Your task to perform on an android device: empty trash in the gmail app Image 0: 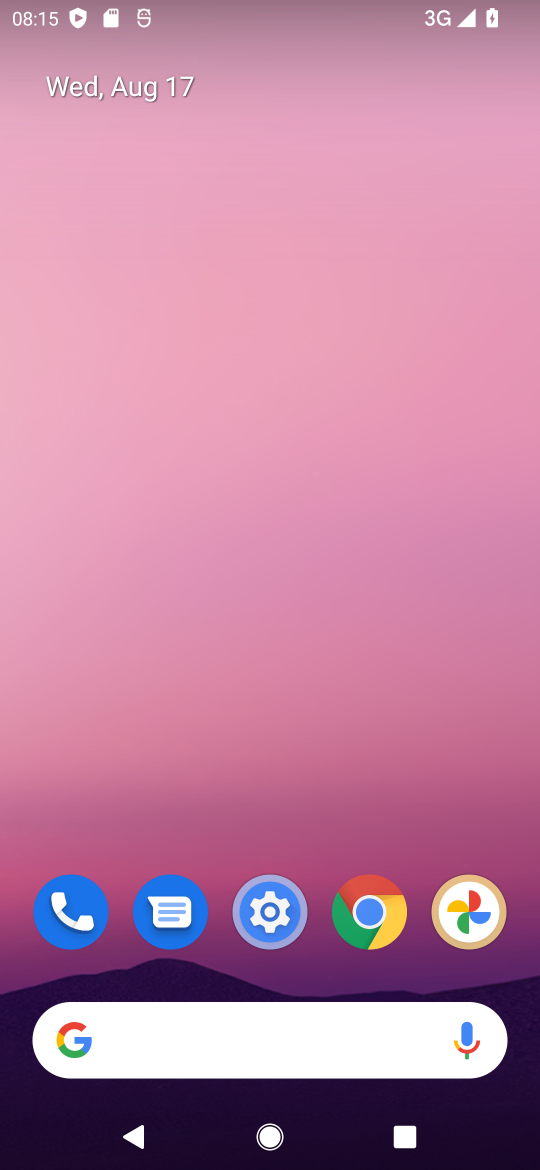
Step 0: drag from (304, 765) to (304, 92)
Your task to perform on an android device: empty trash in the gmail app Image 1: 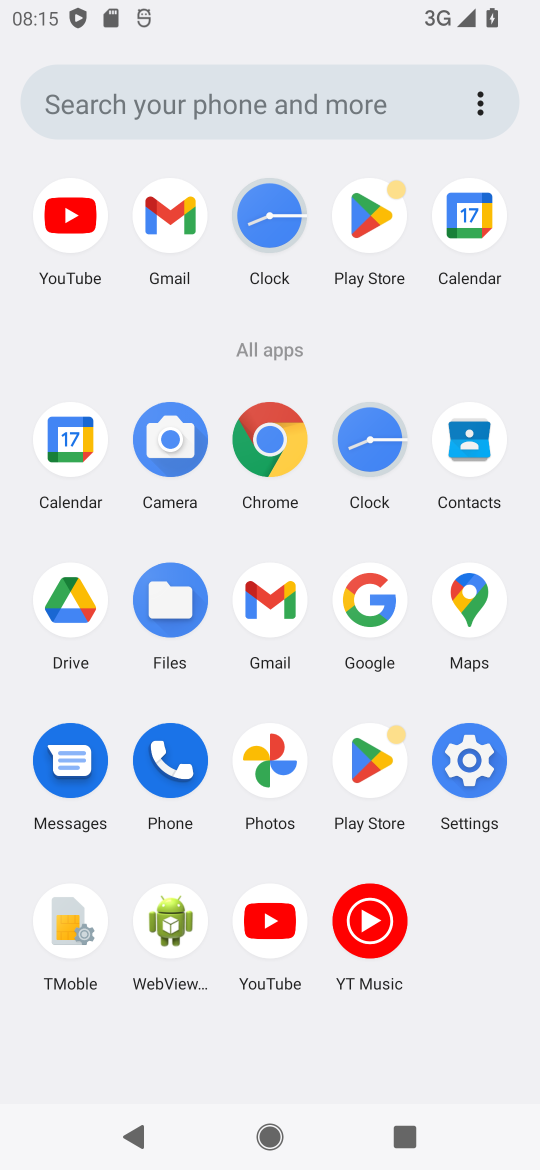
Step 1: click (264, 610)
Your task to perform on an android device: empty trash in the gmail app Image 2: 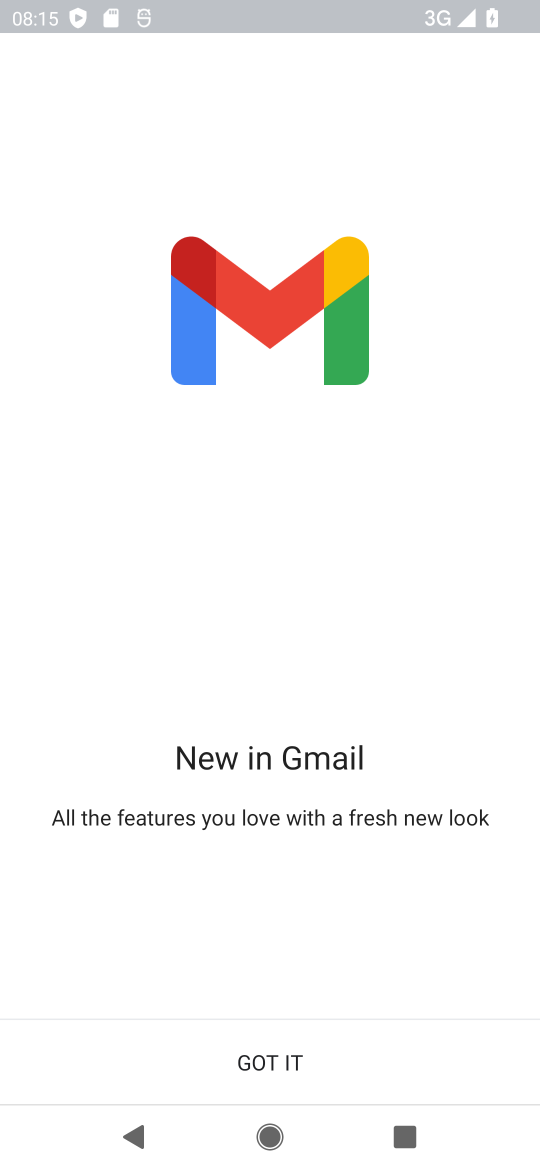
Step 2: click (279, 1058)
Your task to perform on an android device: empty trash in the gmail app Image 3: 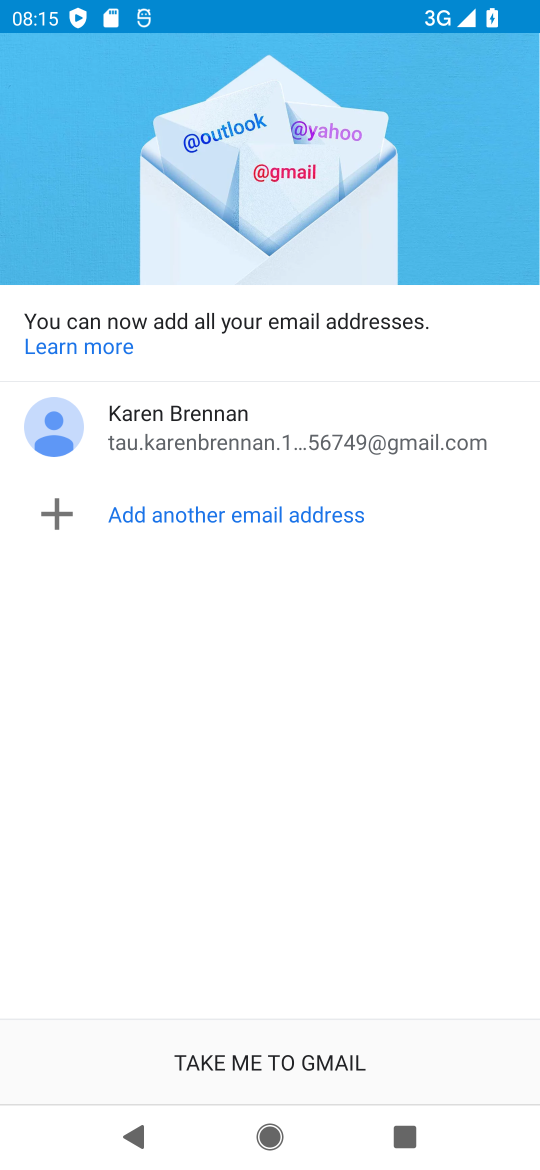
Step 3: click (279, 1058)
Your task to perform on an android device: empty trash in the gmail app Image 4: 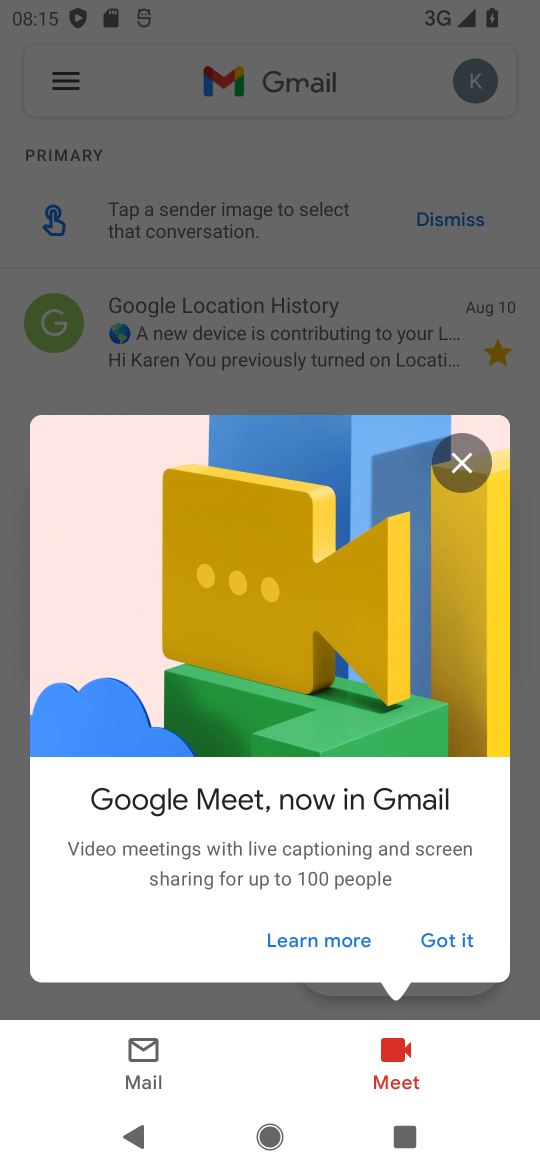
Step 4: click (436, 941)
Your task to perform on an android device: empty trash in the gmail app Image 5: 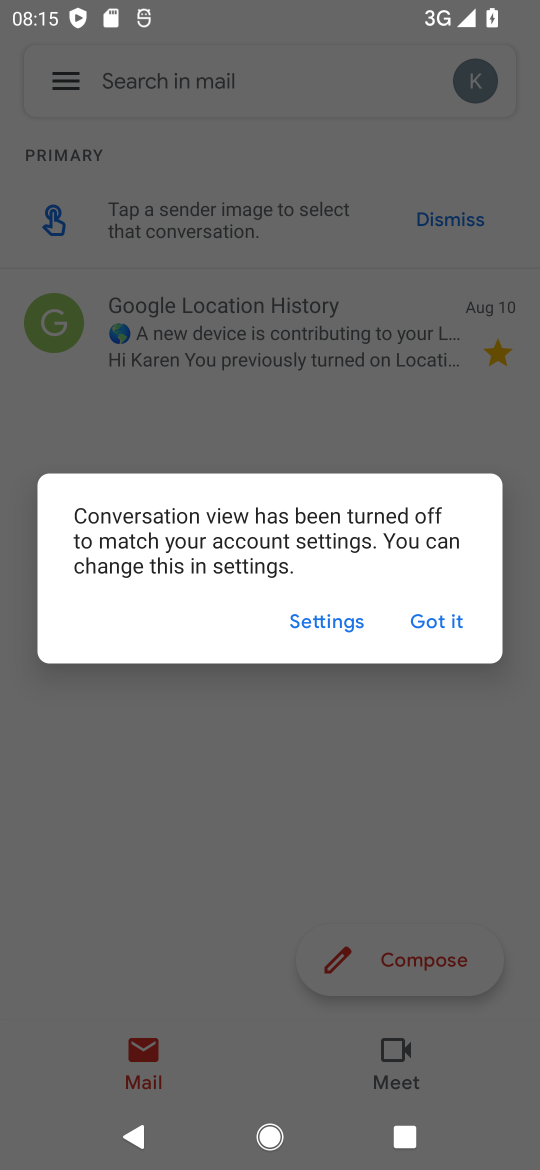
Step 5: click (430, 635)
Your task to perform on an android device: empty trash in the gmail app Image 6: 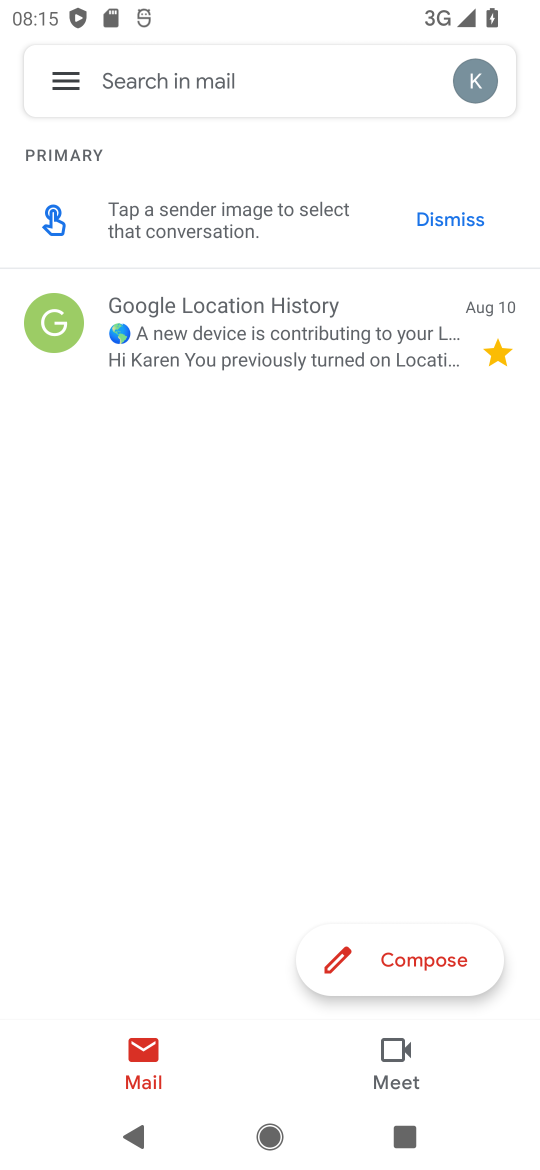
Step 6: click (62, 85)
Your task to perform on an android device: empty trash in the gmail app Image 7: 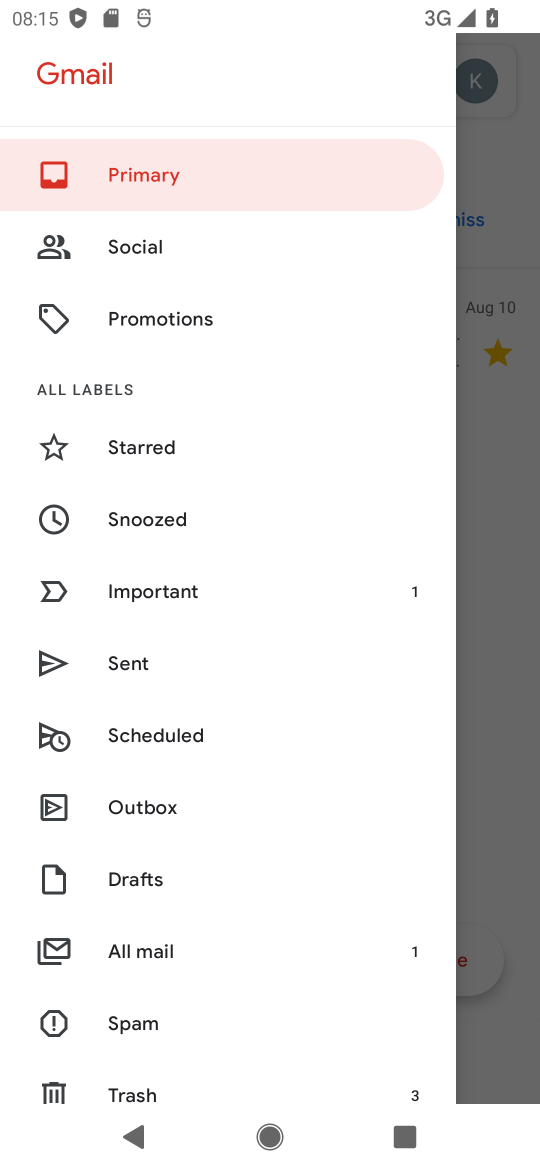
Step 7: click (129, 1080)
Your task to perform on an android device: empty trash in the gmail app Image 8: 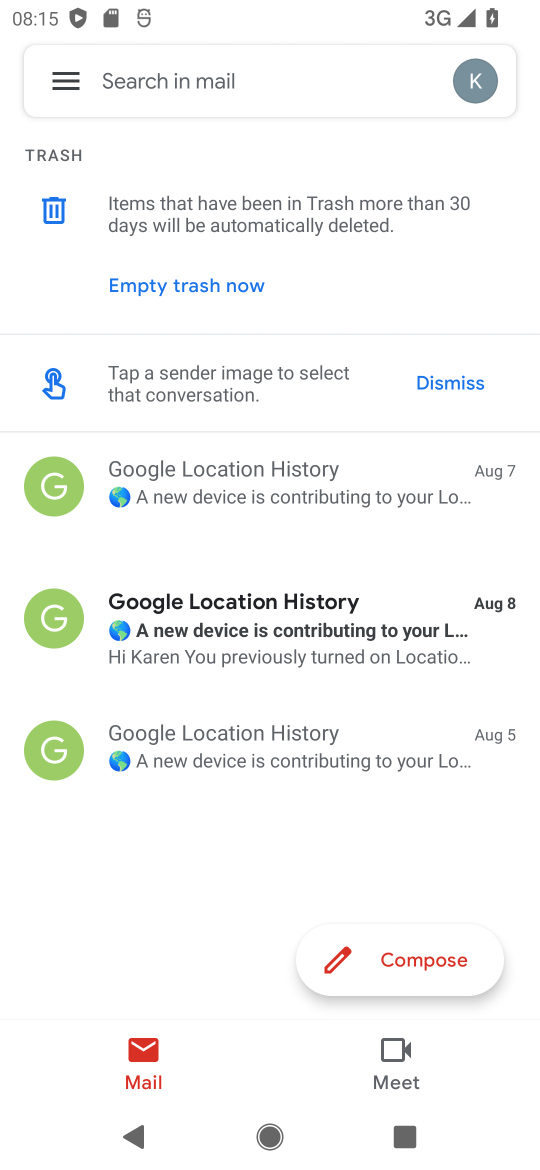
Step 8: task complete